Your task to perform on an android device: Go to sound settings Image 0: 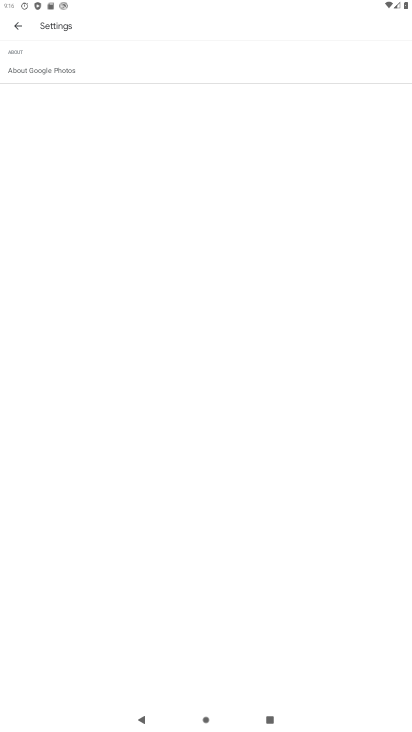
Step 0: press home button
Your task to perform on an android device: Go to sound settings Image 1: 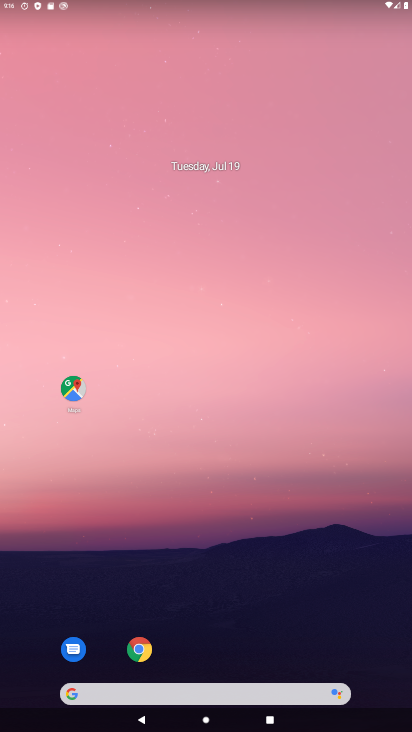
Step 1: drag from (299, 567) to (250, 125)
Your task to perform on an android device: Go to sound settings Image 2: 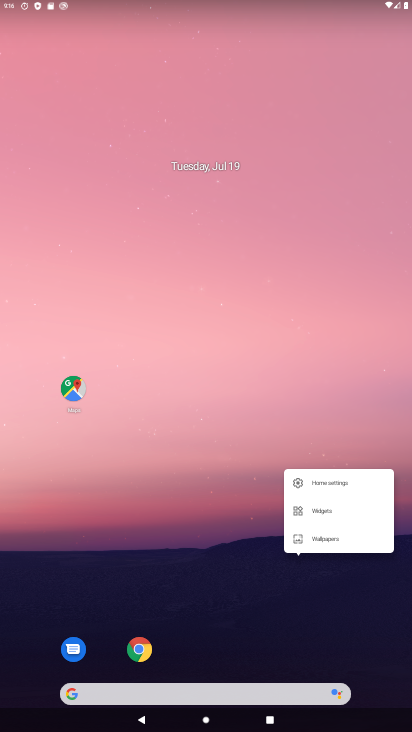
Step 2: click (213, 564)
Your task to perform on an android device: Go to sound settings Image 3: 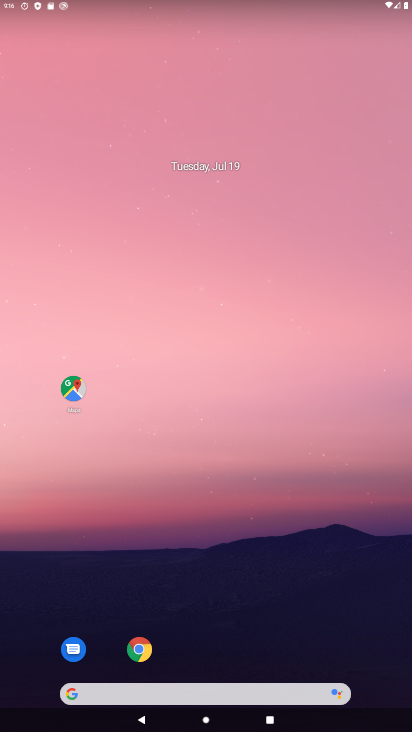
Step 3: drag from (213, 564) to (210, 50)
Your task to perform on an android device: Go to sound settings Image 4: 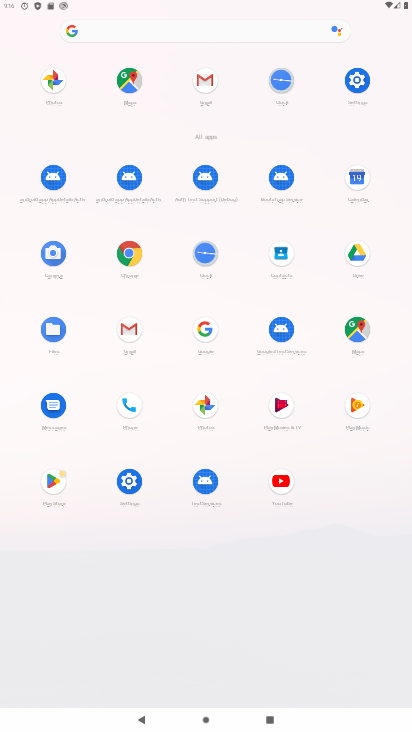
Step 4: click (130, 485)
Your task to perform on an android device: Go to sound settings Image 5: 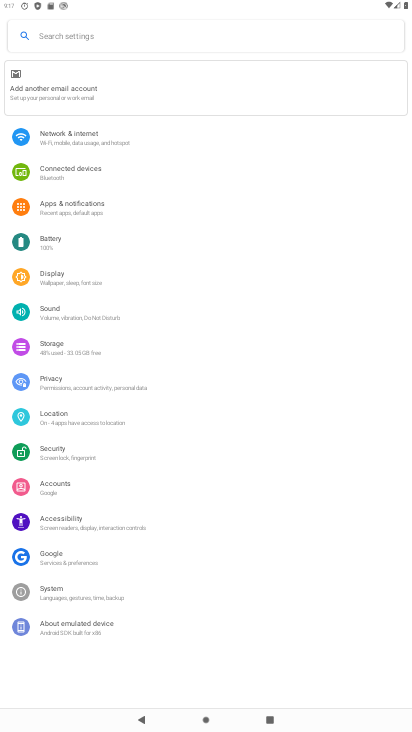
Step 5: click (55, 314)
Your task to perform on an android device: Go to sound settings Image 6: 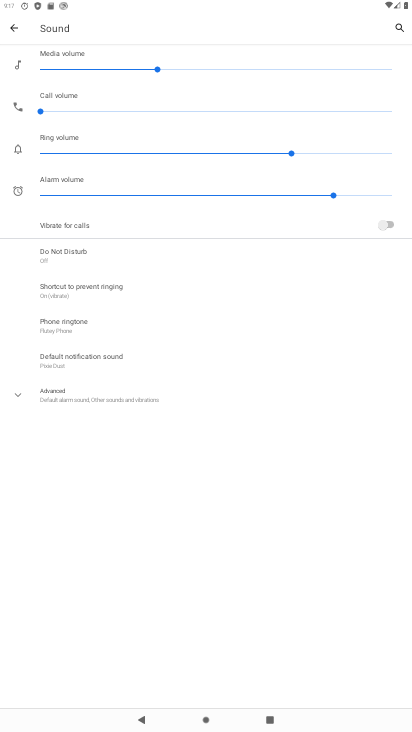
Step 6: task complete